Your task to perform on an android device: Go to calendar. Show me events next week Image 0: 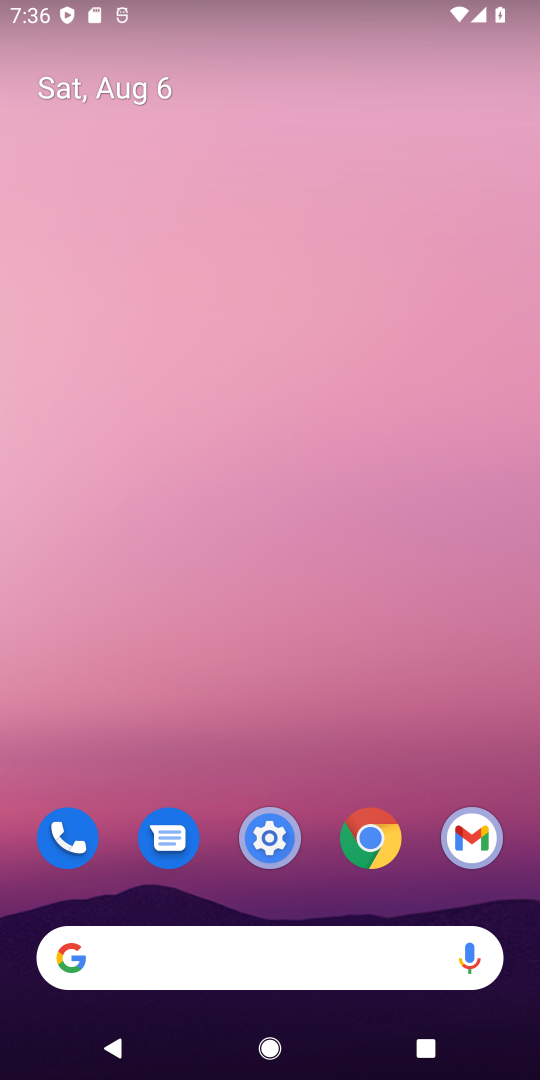
Step 0: drag from (319, 858) to (329, 342)
Your task to perform on an android device: Go to calendar. Show me events next week Image 1: 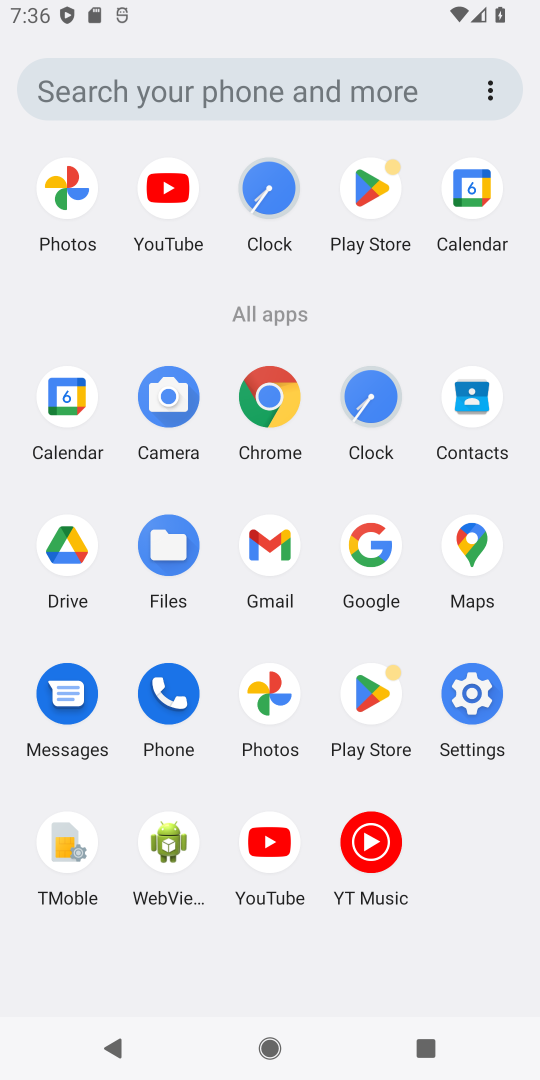
Step 1: click (62, 399)
Your task to perform on an android device: Go to calendar. Show me events next week Image 2: 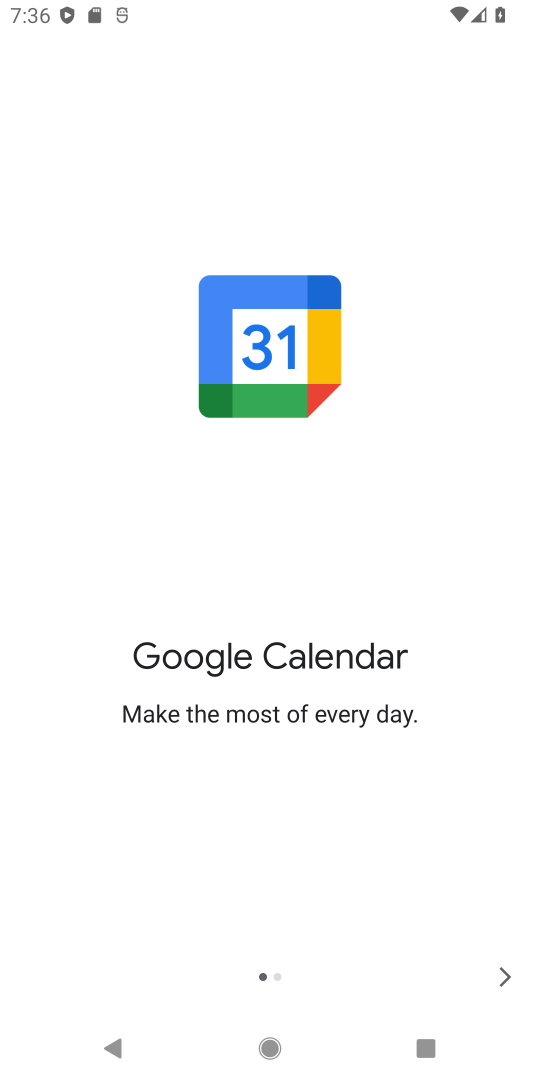
Step 2: click (504, 969)
Your task to perform on an android device: Go to calendar. Show me events next week Image 3: 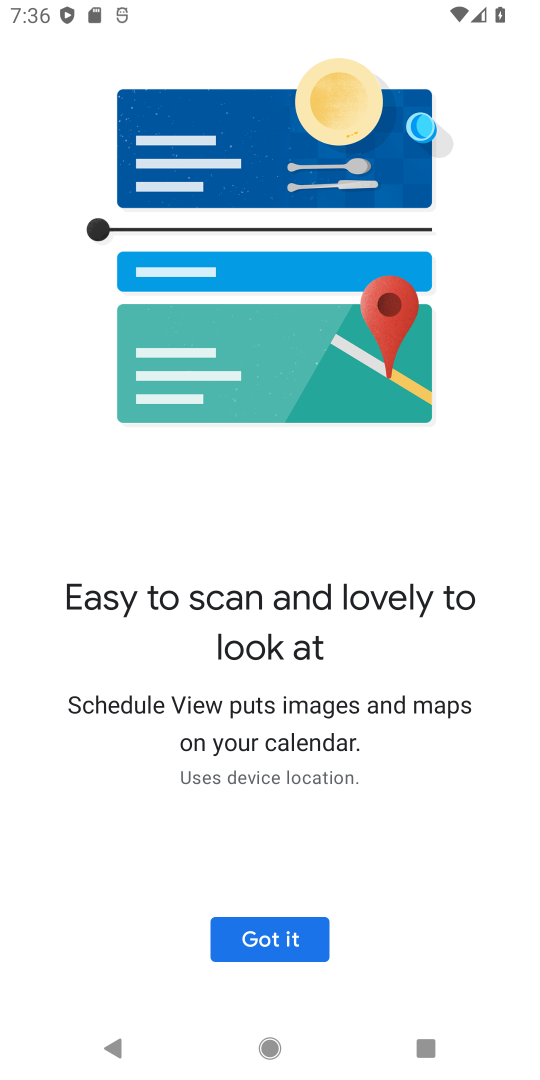
Step 3: click (279, 931)
Your task to perform on an android device: Go to calendar. Show me events next week Image 4: 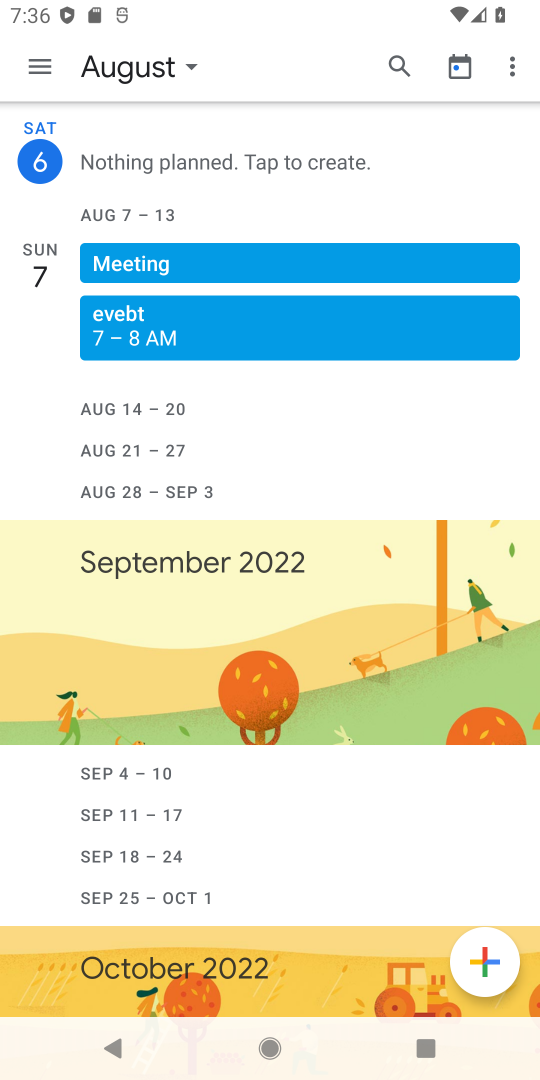
Step 4: click (39, 61)
Your task to perform on an android device: Go to calendar. Show me events next week Image 5: 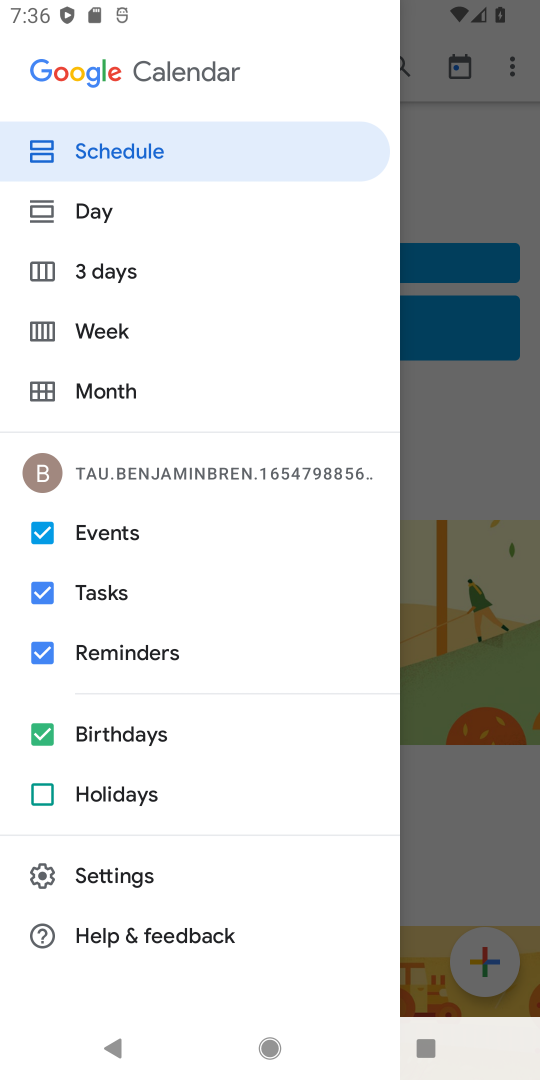
Step 5: click (118, 331)
Your task to perform on an android device: Go to calendar. Show me events next week Image 6: 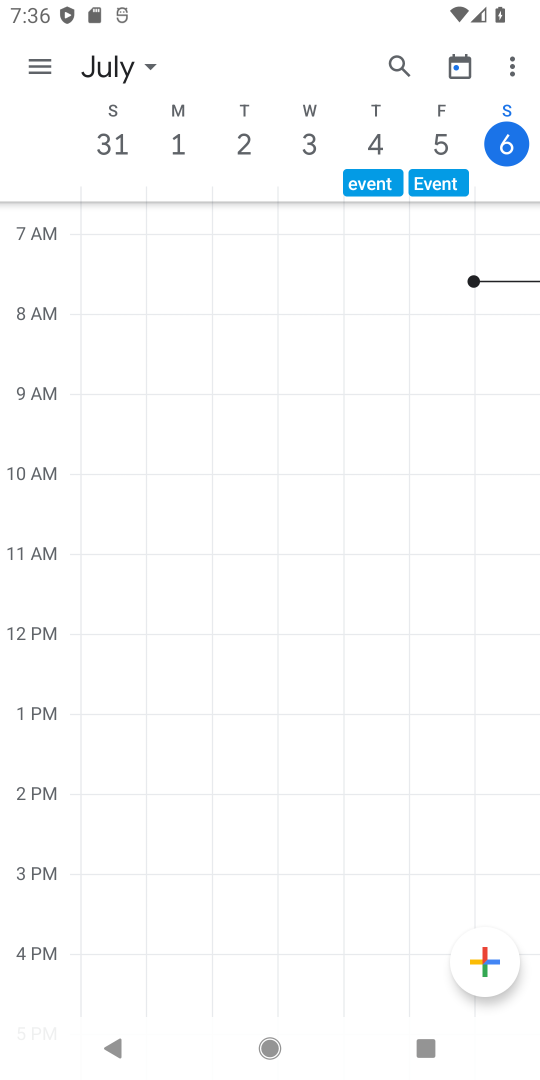
Step 6: click (123, 75)
Your task to perform on an android device: Go to calendar. Show me events next week Image 7: 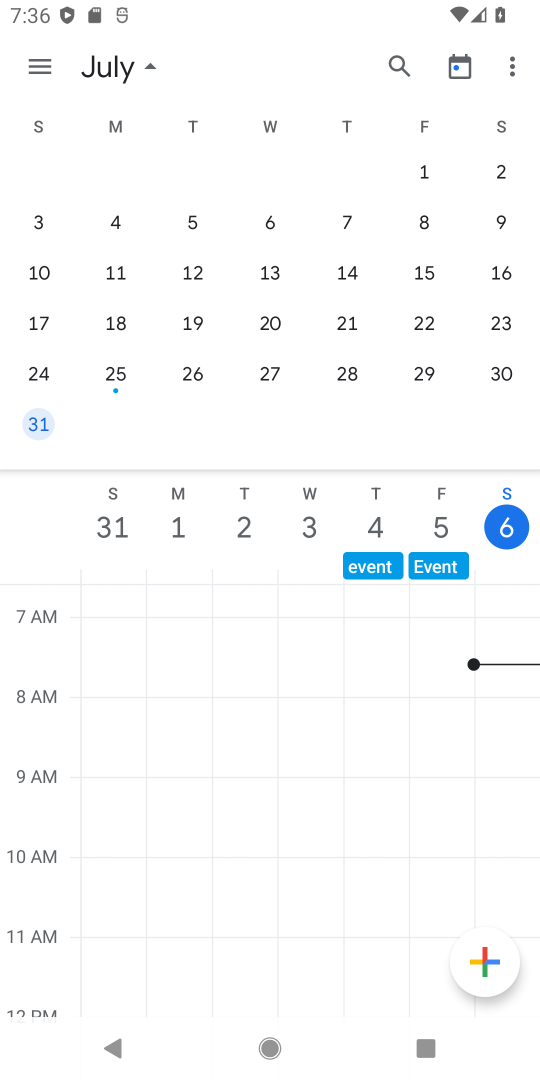
Step 7: drag from (436, 234) to (20, 256)
Your task to perform on an android device: Go to calendar. Show me events next week Image 8: 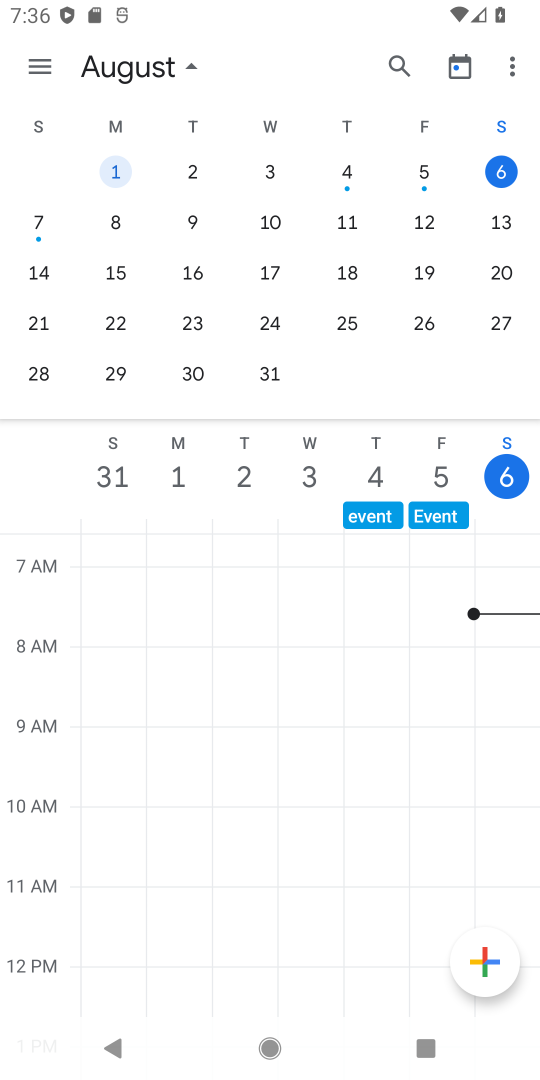
Step 8: click (41, 232)
Your task to perform on an android device: Go to calendar. Show me events next week Image 9: 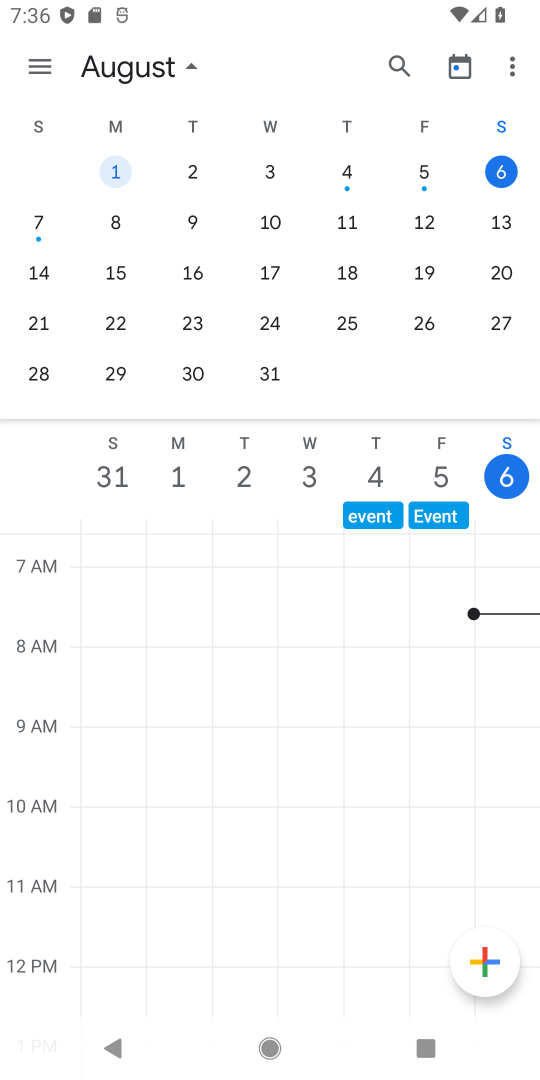
Step 9: click (41, 232)
Your task to perform on an android device: Go to calendar. Show me events next week Image 10: 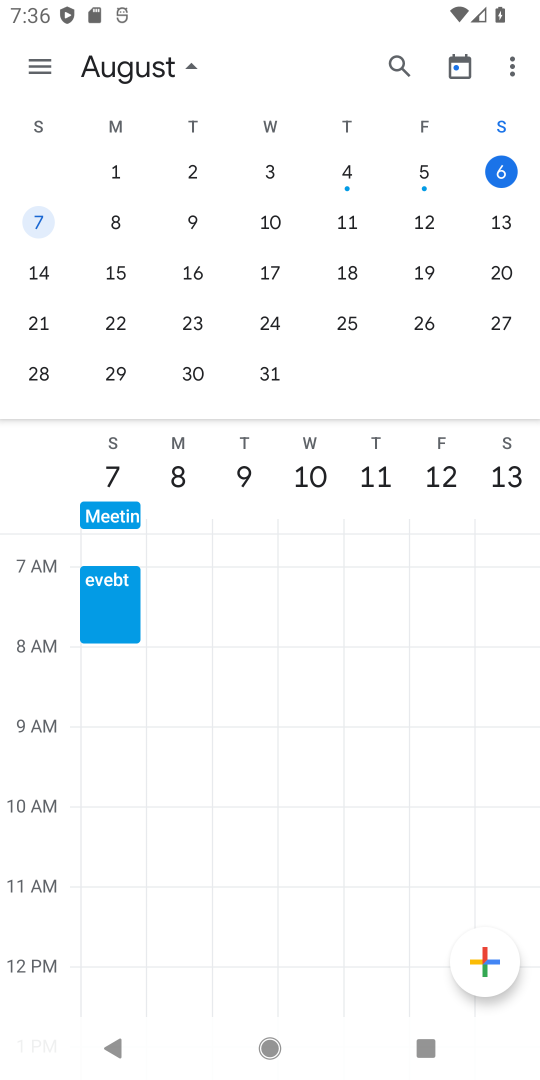
Step 10: task complete